Your task to perform on an android device: Go to display settings Image 0: 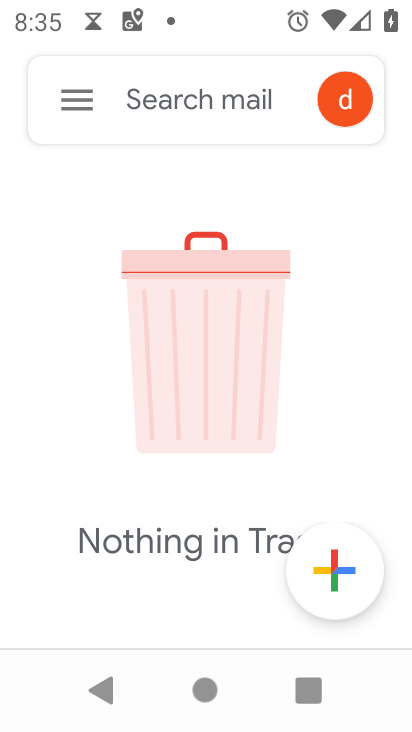
Step 0: press home button
Your task to perform on an android device: Go to display settings Image 1: 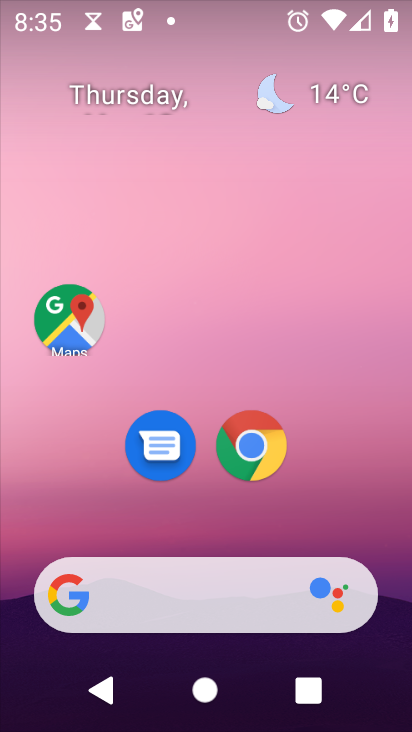
Step 1: drag from (226, 724) to (247, 172)
Your task to perform on an android device: Go to display settings Image 2: 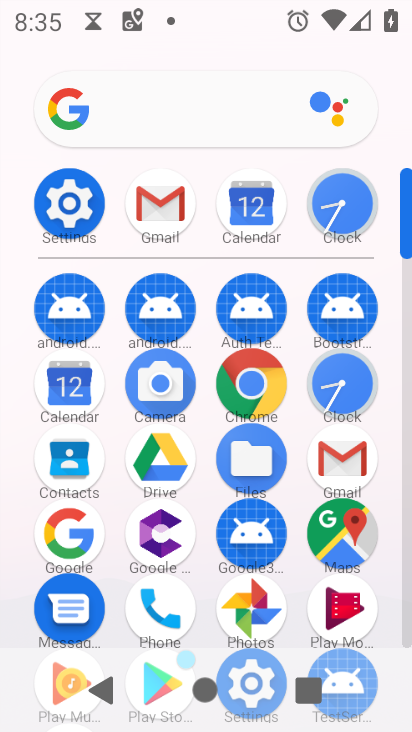
Step 2: click (73, 198)
Your task to perform on an android device: Go to display settings Image 3: 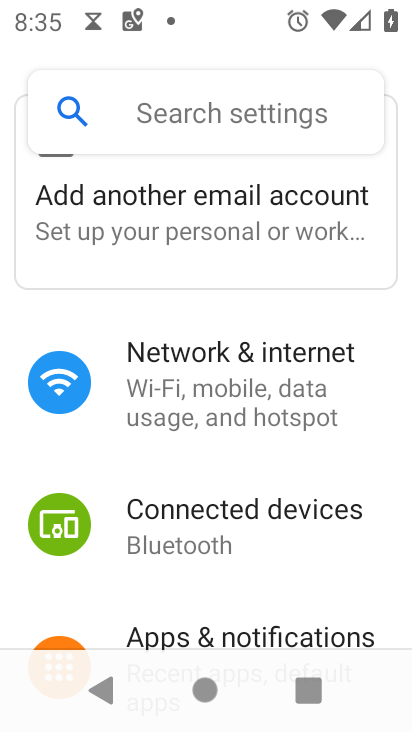
Step 3: drag from (215, 606) to (276, 220)
Your task to perform on an android device: Go to display settings Image 4: 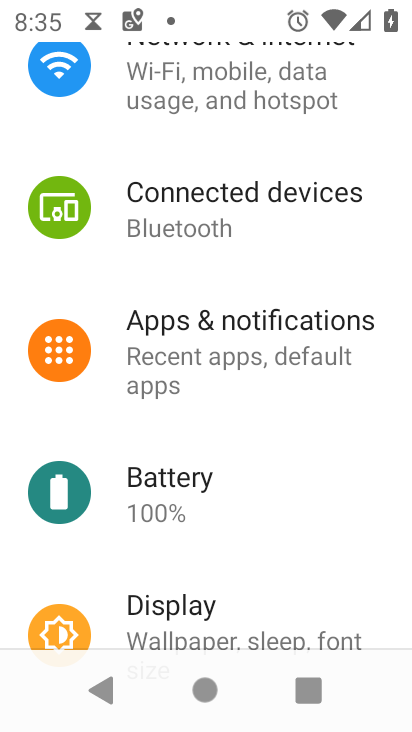
Step 4: drag from (234, 600) to (222, 198)
Your task to perform on an android device: Go to display settings Image 5: 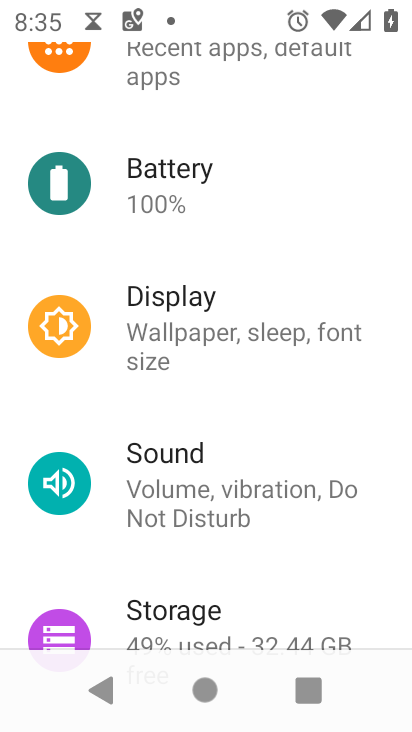
Step 5: click (149, 327)
Your task to perform on an android device: Go to display settings Image 6: 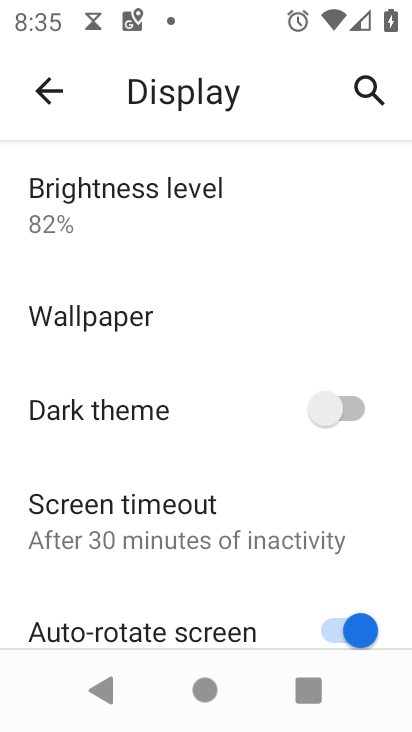
Step 6: task complete